Your task to perform on an android device: turn on wifi Image 0: 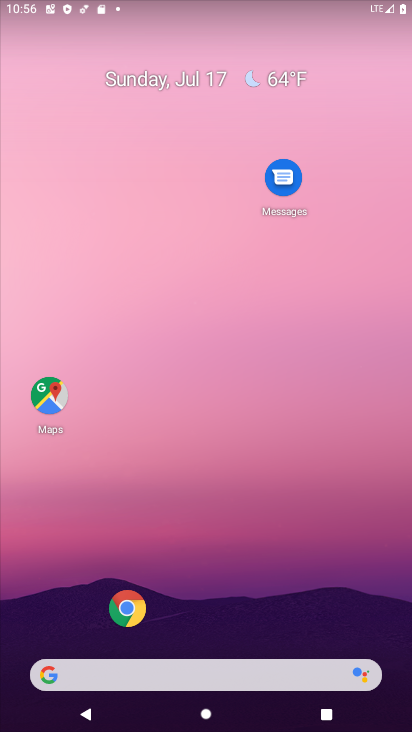
Step 0: drag from (21, 656) to (255, 100)
Your task to perform on an android device: turn on wifi Image 1: 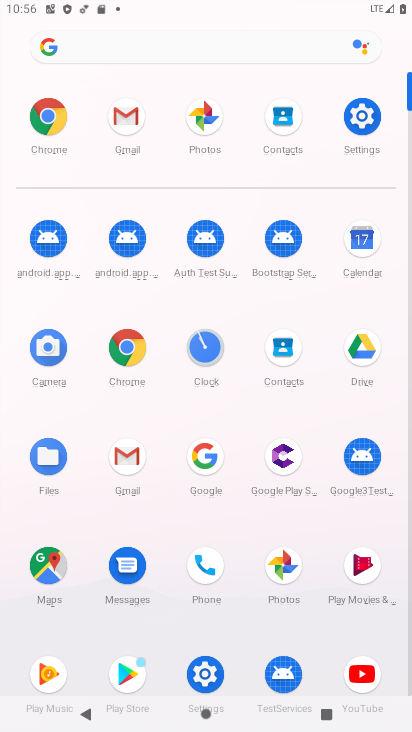
Step 1: click (191, 683)
Your task to perform on an android device: turn on wifi Image 2: 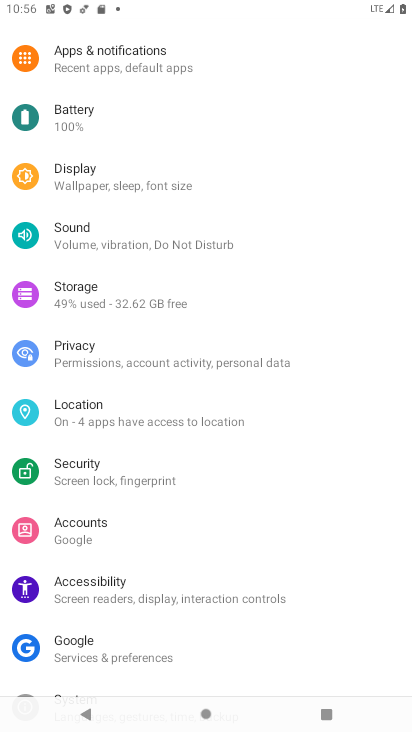
Step 2: drag from (251, 78) to (258, 464)
Your task to perform on an android device: turn on wifi Image 3: 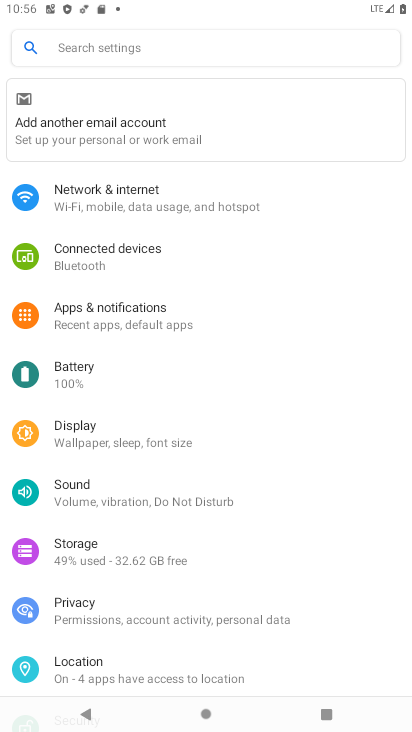
Step 3: click (163, 185)
Your task to perform on an android device: turn on wifi Image 4: 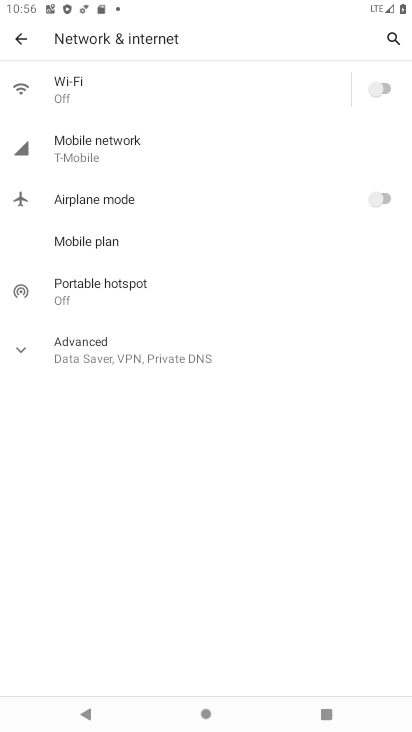
Step 4: click (372, 86)
Your task to perform on an android device: turn on wifi Image 5: 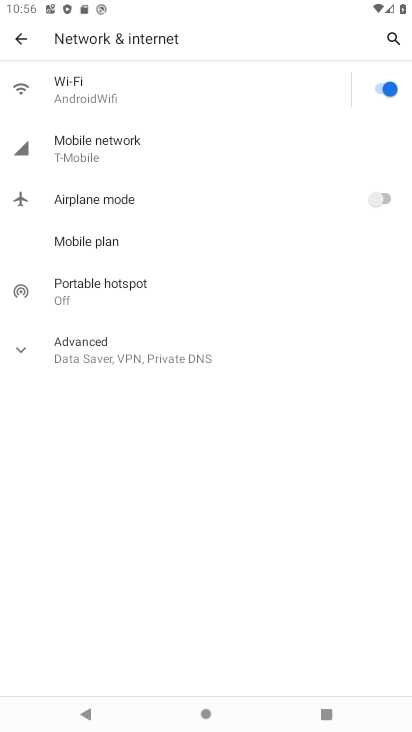
Step 5: task complete